Your task to perform on an android device: Go to internet settings Image 0: 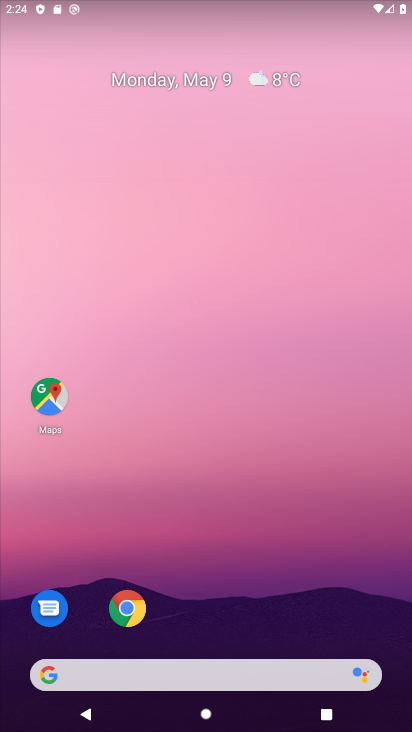
Step 0: drag from (201, 541) to (178, 236)
Your task to perform on an android device: Go to internet settings Image 1: 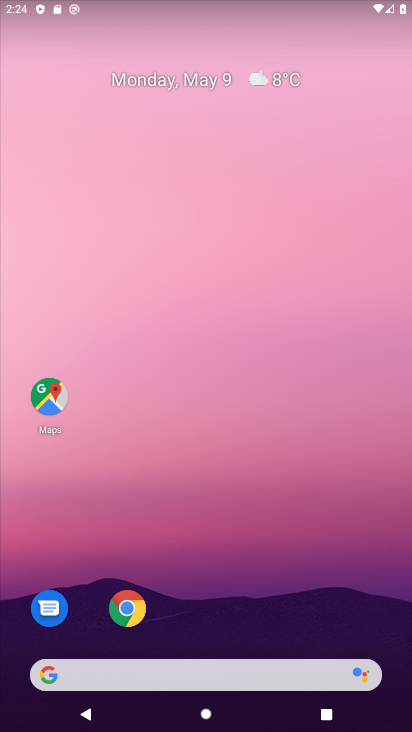
Step 1: drag from (225, 589) to (234, 239)
Your task to perform on an android device: Go to internet settings Image 2: 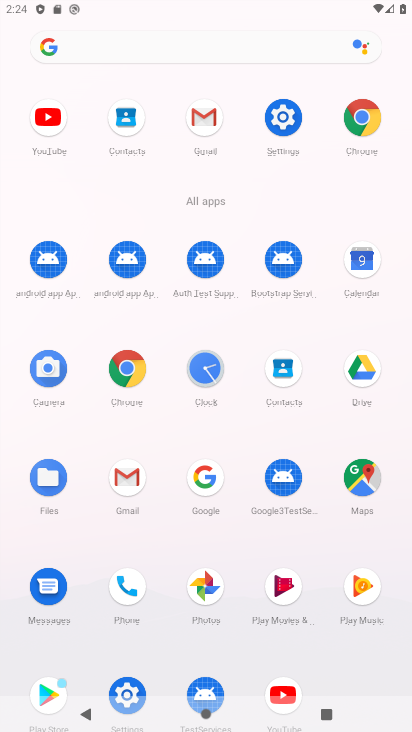
Step 2: click (278, 121)
Your task to perform on an android device: Go to internet settings Image 3: 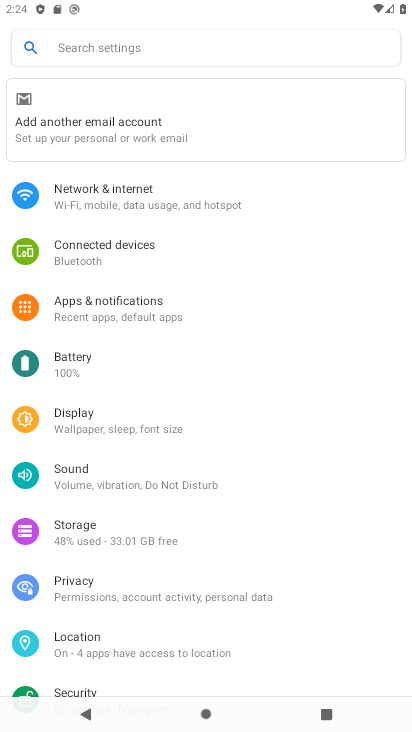
Step 3: click (122, 203)
Your task to perform on an android device: Go to internet settings Image 4: 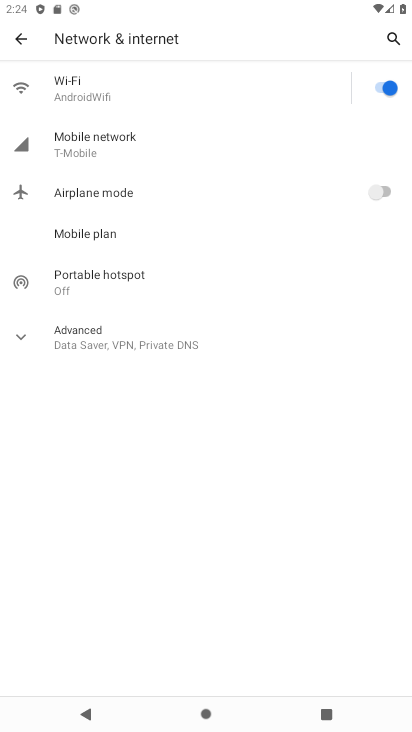
Step 4: task complete